Your task to perform on an android device: Clear the shopping cart on walmart.com. Add usb-b to the cart on walmart.com, then select checkout. Image 0: 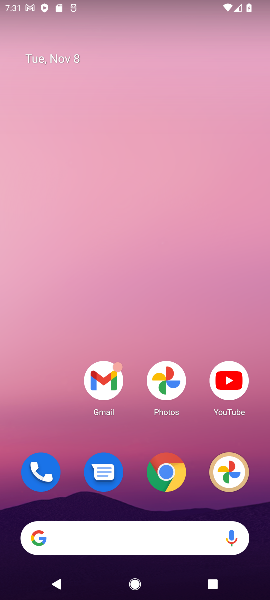
Step 0: click (167, 474)
Your task to perform on an android device: Clear the shopping cart on walmart.com. Add usb-b to the cart on walmart.com, then select checkout. Image 1: 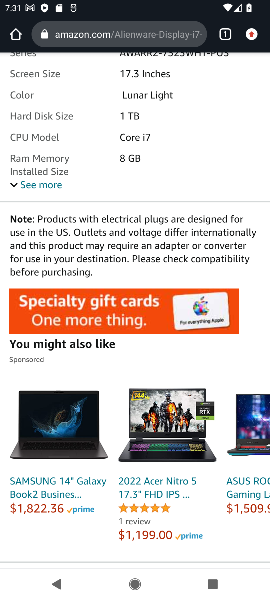
Step 1: click (118, 34)
Your task to perform on an android device: Clear the shopping cart on walmart.com. Add usb-b to the cart on walmart.com, then select checkout. Image 2: 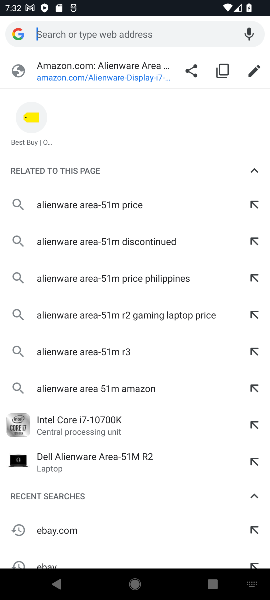
Step 2: type "walmart.com"
Your task to perform on an android device: Clear the shopping cart on walmart.com. Add usb-b to the cart on walmart.com, then select checkout. Image 3: 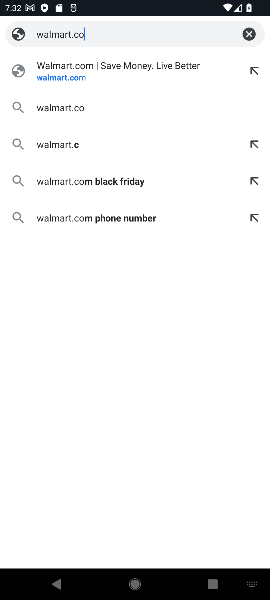
Step 3: press enter
Your task to perform on an android device: Clear the shopping cart on walmart.com. Add usb-b to the cart on walmart.com, then select checkout. Image 4: 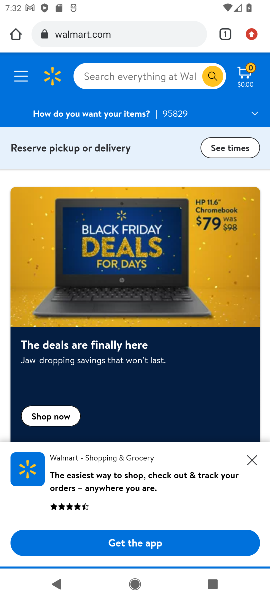
Step 4: click (116, 80)
Your task to perform on an android device: Clear the shopping cart on walmart.com. Add usb-b to the cart on walmart.com, then select checkout. Image 5: 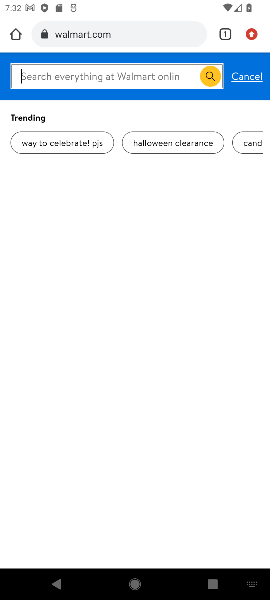
Step 5: type "usb-b "
Your task to perform on an android device: Clear the shopping cart on walmart.com. Add usb-b to the cart on walmart.com, then select checkout. Image 6: 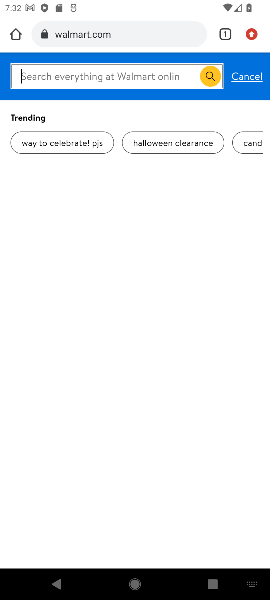
Step 6: press enter
Your task to perform on an android device: Clear the shopping cart on walmart.com. Add usb-b to the cart on walmart.com, then select checkout. Image 7: 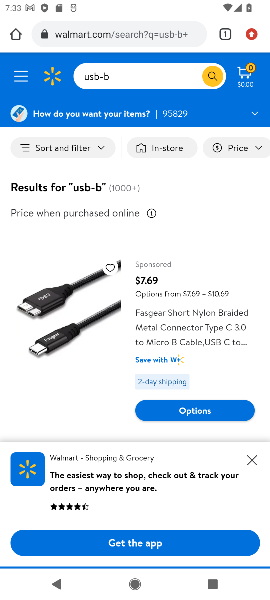
Step 7: drag from (69, 370) to (125, 236)
Your task to perform on an android device: Clear the shopping cart on walmart.com. Add usb-b to the cart on walmart.com, then select checkout. Image 8: 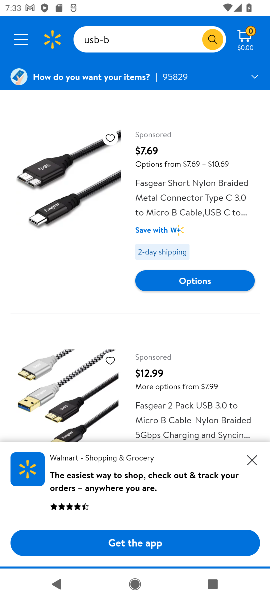
Step 8: click (253, 462)
Your task to perform on an android device: Clear the shopping cart on walmart.com. Add usb-b to the cart on walmart.com, then select checkout. Image 9: 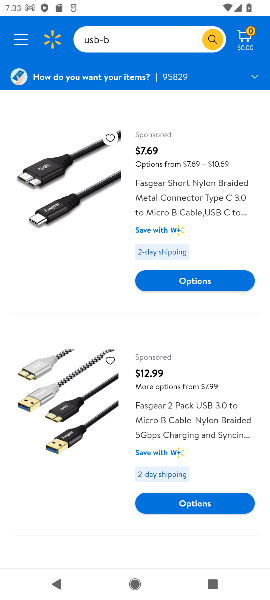
Step 9: click (194, 197)
Your task to perform on an android device: Clear the shopping cart on walmart.com. Add usb-b to the cart on walmart.com, then select checkout. Image 10: 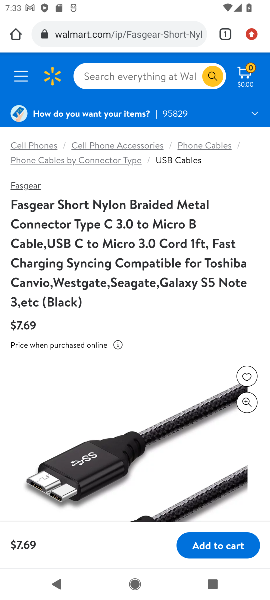
Step 10: click (206, 550)
Your task to perform on an android device: Clear the shopping cart on walmart.com. Add usb-b to the cart on walmart.com, then select checkout. Image 11: 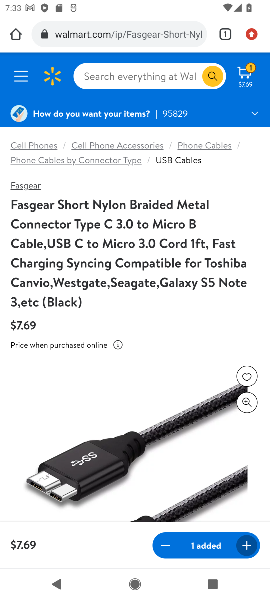
Step 11: click (247, 75)
Your task to perform on an android device: Clear the shopping cart on walmart.com. Add usb-b to the cart on walmart.com, then select checkout. Image 12: 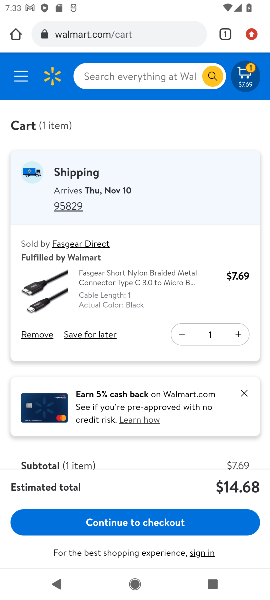
Step 12: click (130, 518)
Your task to perform on an android device: Clear the shopping cart on walmart.com. Add usb-b to the cart on walmart.com, then select checkout. Image 13: 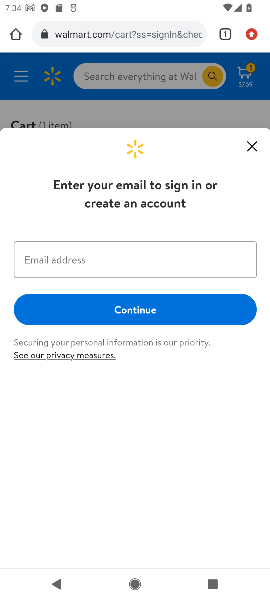
Step 13: task complete